Your task to perform on an android device: Show me productivity apps on the Play Store Image 0: 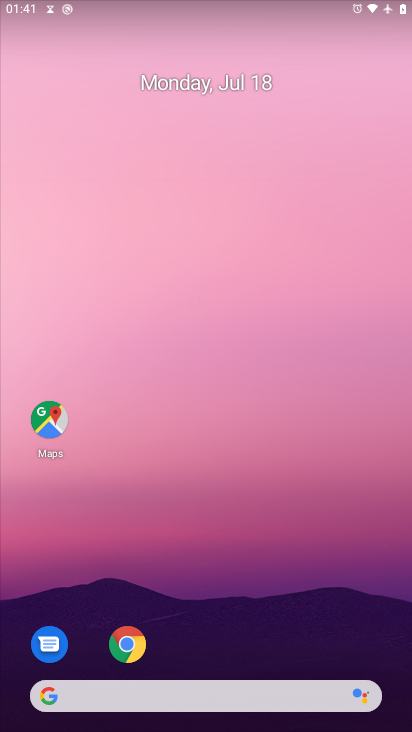
Step 0: press home button
Your task to perform on an android device: Show me productivity apps on the Play Store Image 1: 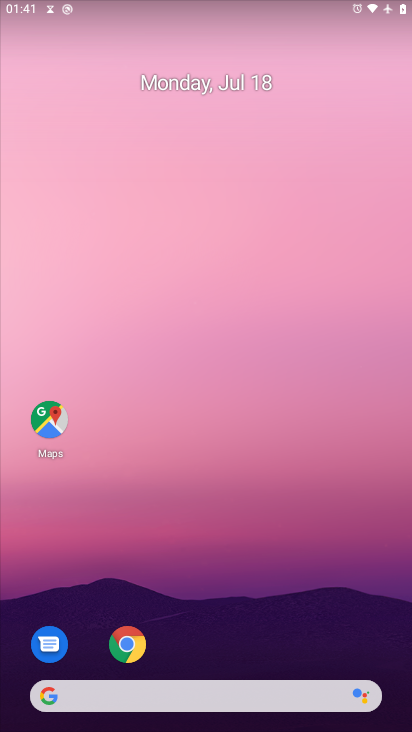
Step 1: drag from (257, 650) to (278, 116)
Your task to perform on an android device: Show me productivity apps on the Play Store Image 2: 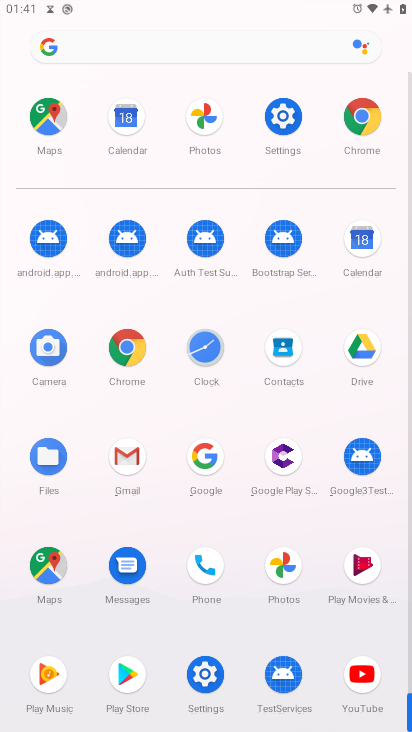
Step 2: click (126, 680)
Your task to perform on an android device: Show me productivity apps on the Play Store Image 3: 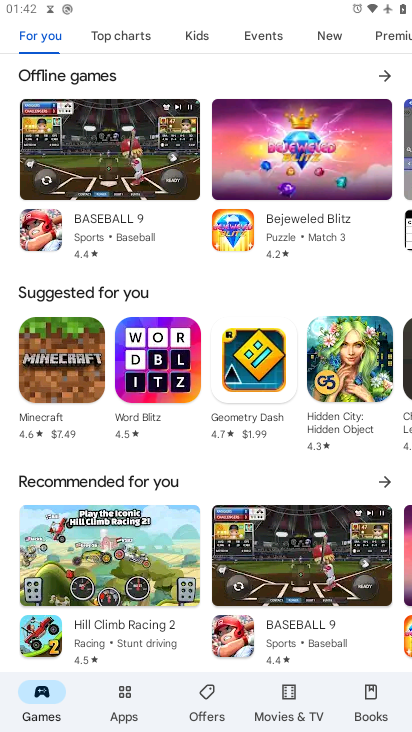
Step 3: click (120, 703)
Your task to perform on an android device: Show me productivity apps on the Play Store Image 4: 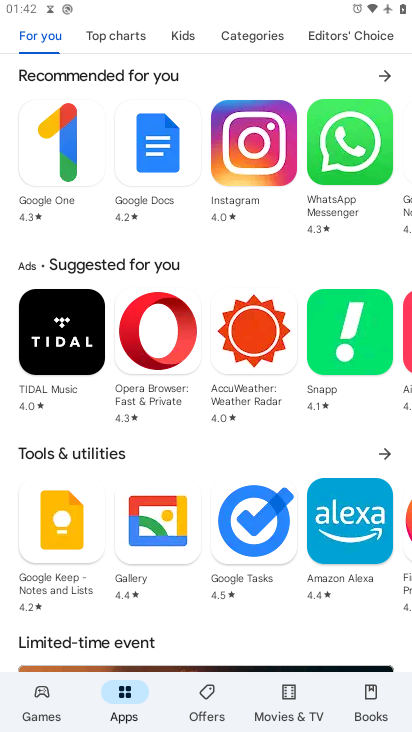
Step 4: click (254, 35)
Your task to perform on an android device: Show me productivity apps on the Play Store Image 5: 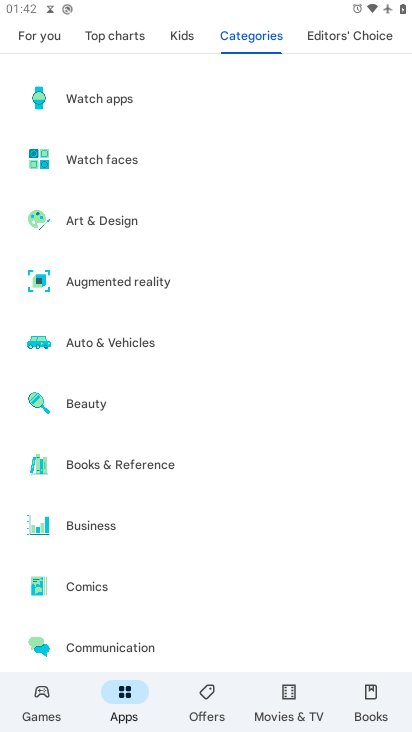
Step 5: drag from (290, 574) to (211, 47)
Your task to perform on an android device: Show me productivity apps on the Play Store Image 6: 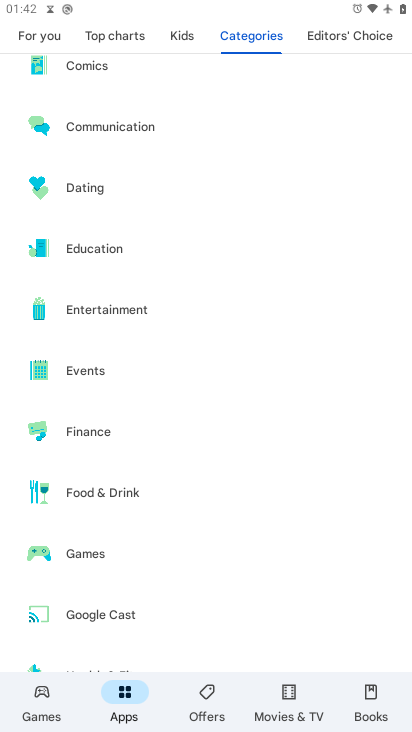
Step 6: drag from (316, 597) to (340, 20)
Your task to perform on an android device: Show me productivity apps on the Play Store Image 7: 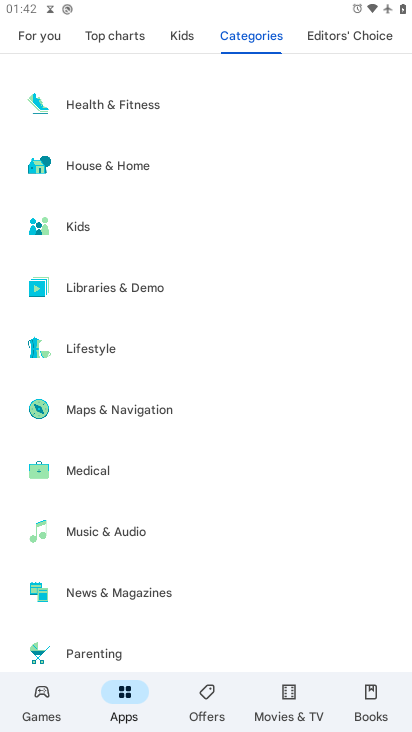
Step 7: drag from (327, 656) to (327, 284)
Your task to perform on an android device: Show me productivity apps on the Play Store Image 8: 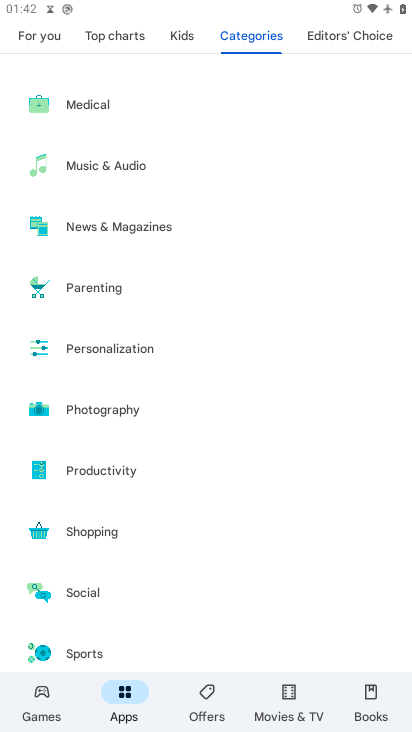
Step 8: click (110, 471)
Your task to perform on an android device: Show me productivity apps on the Play Store Image 9: 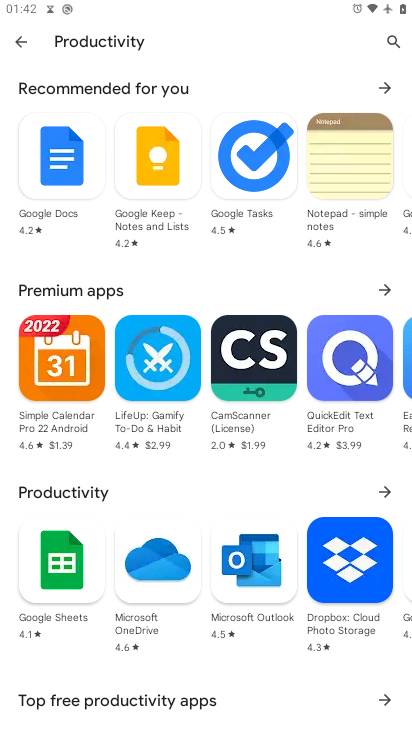
Step 9: task complete